Your task to perform on an android device: add a contact in the contacts app Image 0: 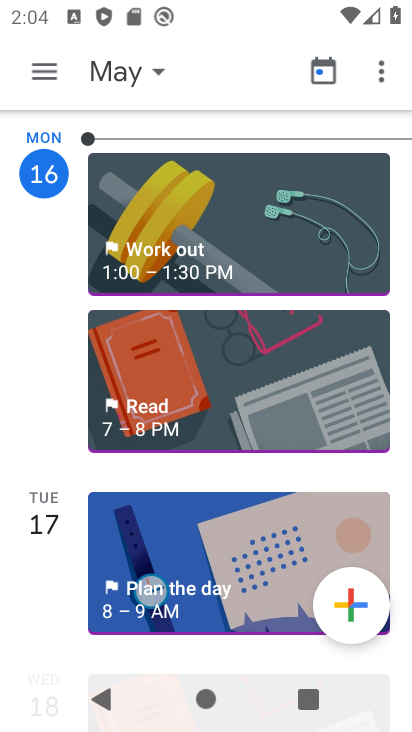
Step 0: press home button
Your task to perform on an android device: add a contact in the contacts app Image 1: 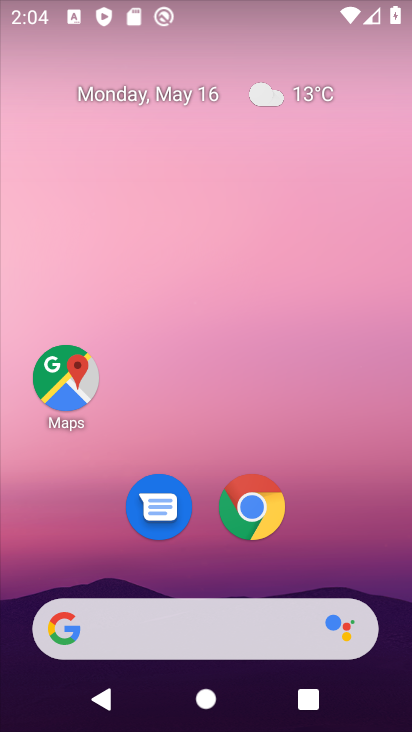
Step 1: drag from (244, 579) to (180, 126)
Your task to perform on an android device: add a contact in the contacts app Image 2: 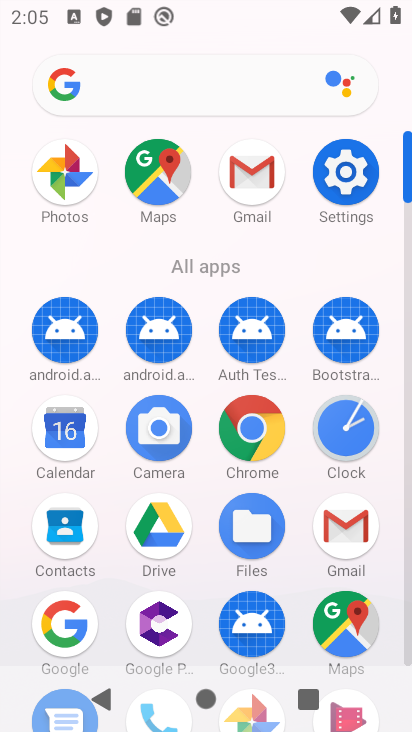
Step 2: click (76, 534)
Your task to perform on an android device: add a contact in the contacts app Image 3: 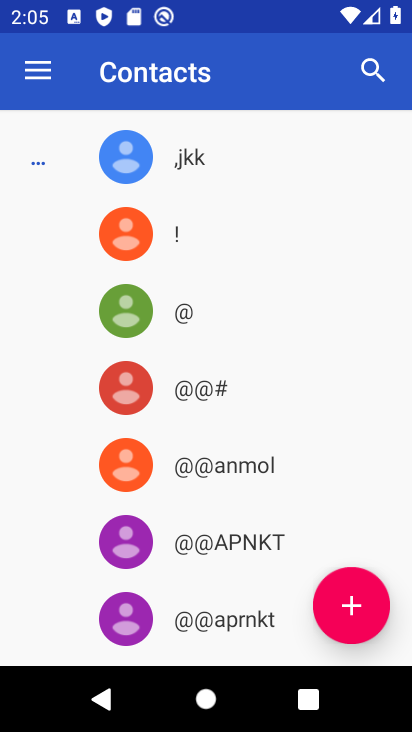
Step 3: click (334, 609)
Your task to perform on an android device: add a contact in the contacts app Image 4: 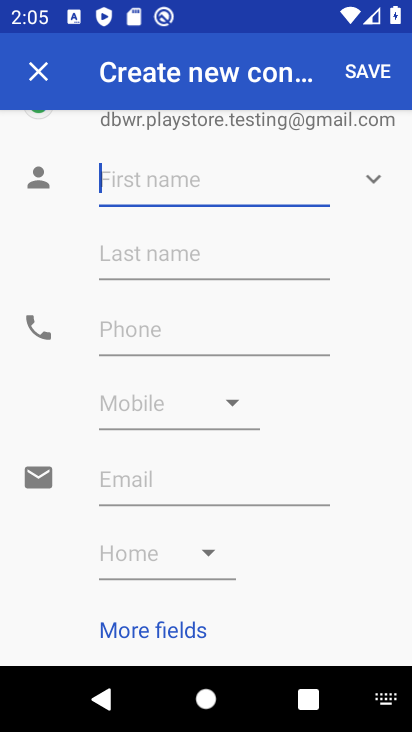
Step 4: type "hgjgdg"
Your task to perform on an android device: add a contact in the contacts app Image 5: 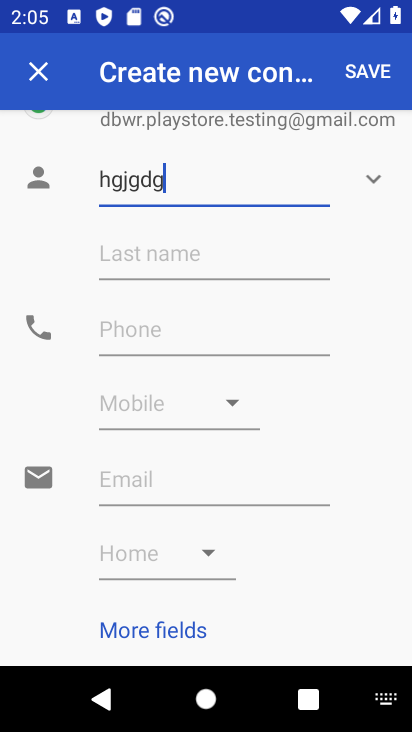
Step 5: type ""
Your task to perform on an android device: add a contact in the contacts app Image 6: 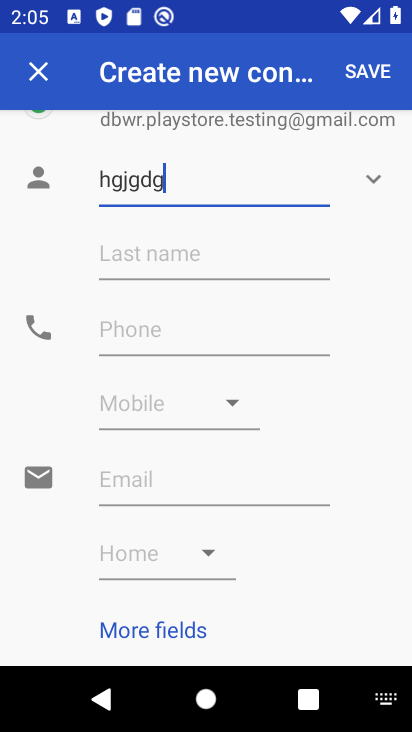
Step 6: click (341, 85)
Your task to perform on an android device: add a contact in the contacts app Image 7: 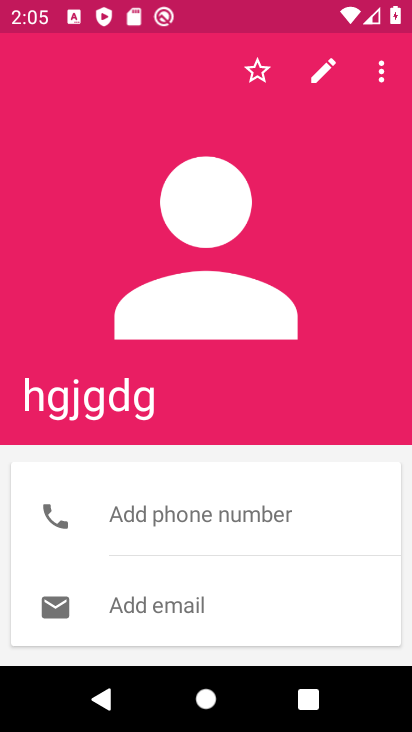
Step 7: task complete